Your task to perform on an android device: change the clock display to analog Image 0: 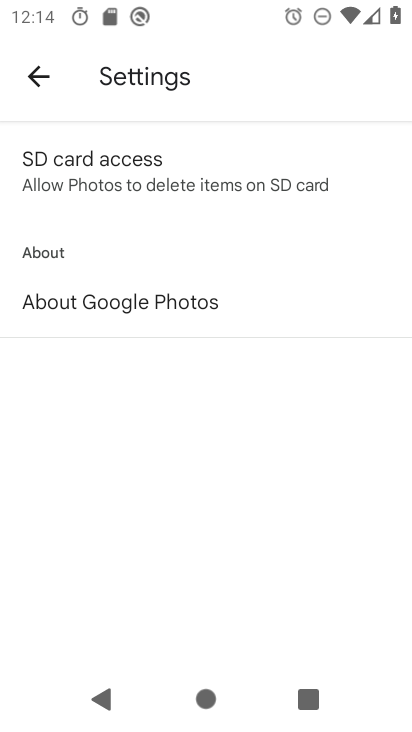
Step 0: press home button
Your task to perform on an android device: change the clock display to analog Image 1: 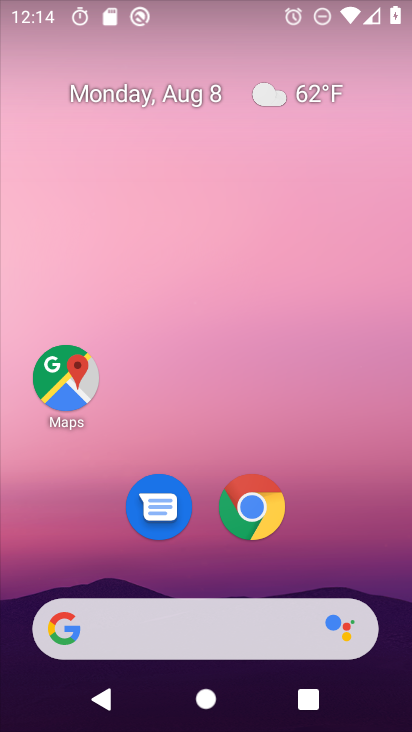
Step 1: drag from (331, 502) to (329, 34)
Your task to perform on an android device: change the clock display to analog Image 2: 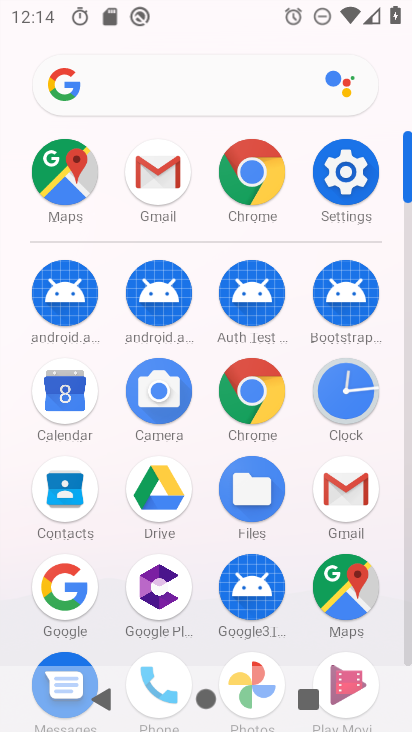
Step 2: click (344, 389)
Your task to perform on an android device: change the clock display to analog Image 3: 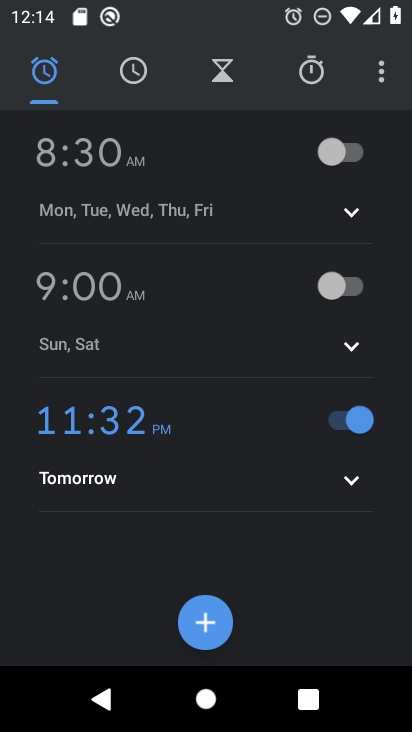
Step 3: click (385, 66)
Your task to perform on an android device: change the clock display to analog Image 4: 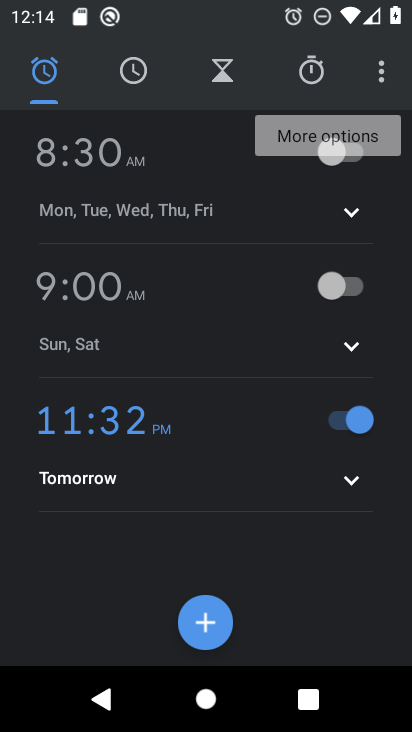
Step 4: click (379, 77)
Your task to perform on an android device: change the clock display to analog Image 5: 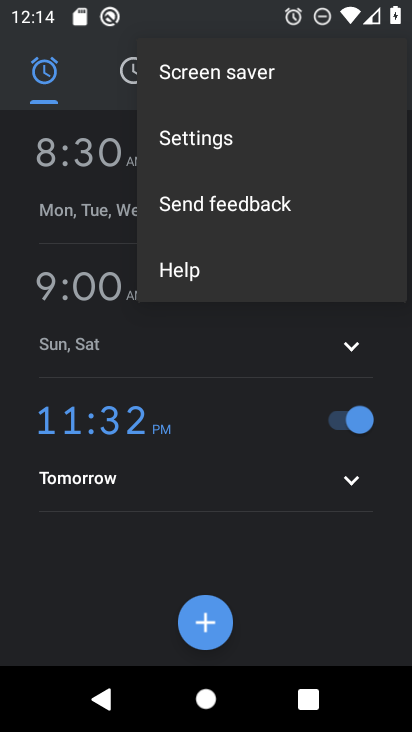
Step 5: click (223, 136)
Your task to perform on an android device: change the clock display to analog Image 6: 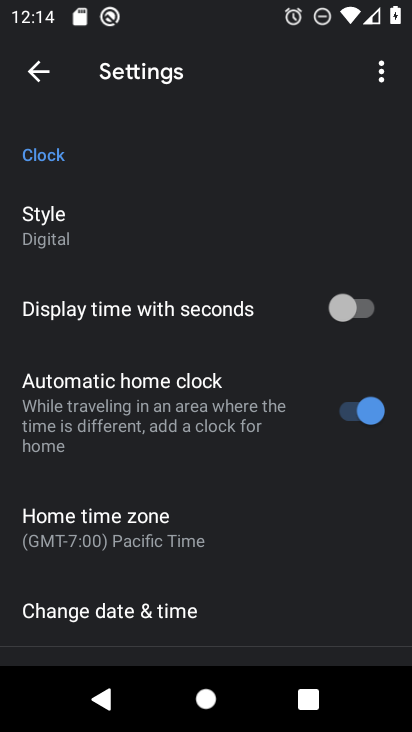
Step 6: click (71, 220)
Your task to perform on an android device: change the clock display to analog Image 7: 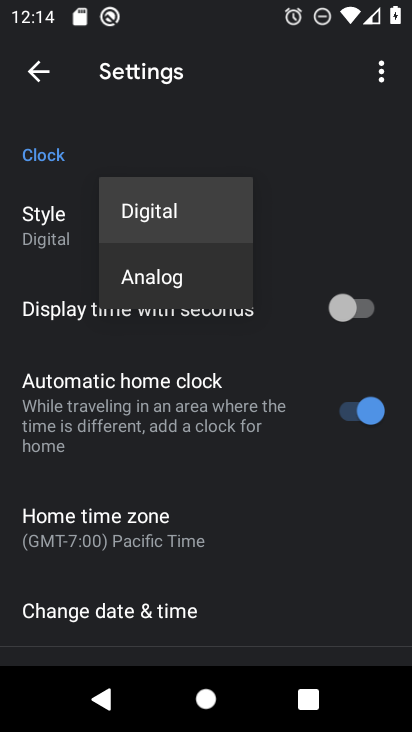
Step 7: click (151, 298)
Your task to perform on an android device: change the clock display to analog Image 8: 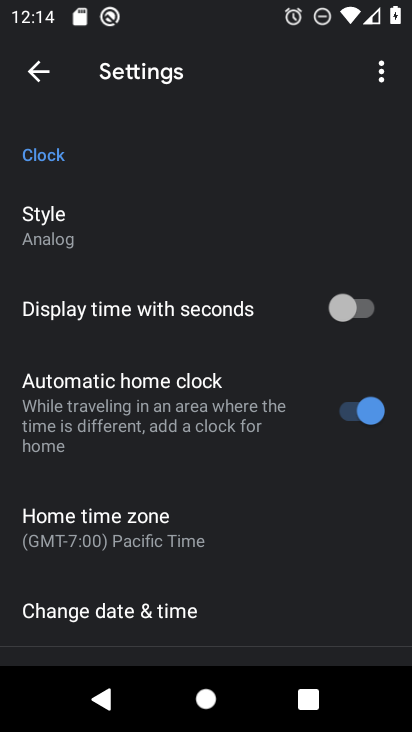
Step 8: task complete